Your task to perform on an android device: turn on location history Image 0: 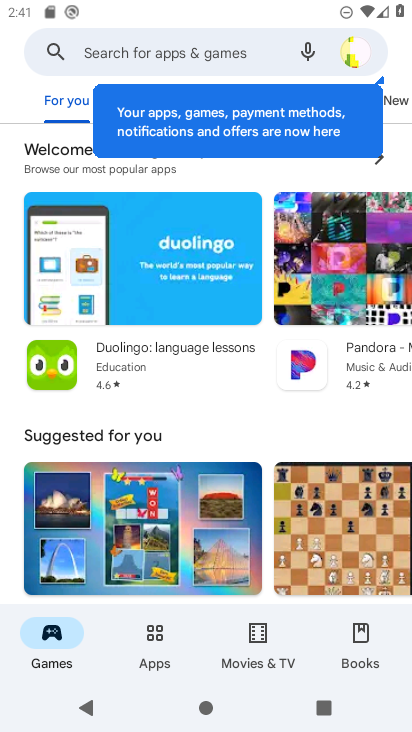
Step 0: press home button
Your task to perform on an android device: turn on location history Image 1: 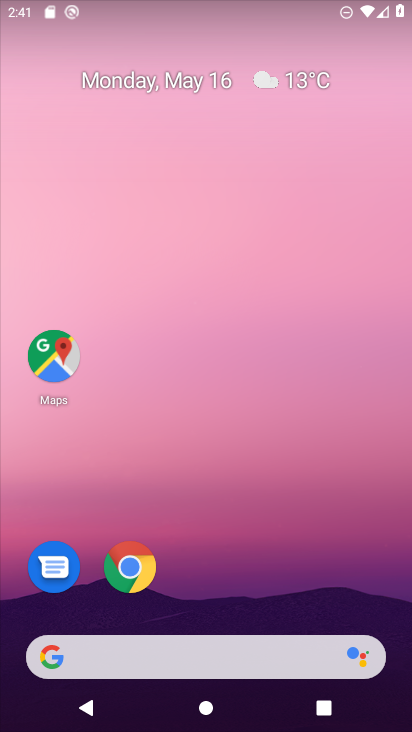
Step 1: drag from (285, 588) to (289, 38)
Your task to perform on an android device: turn on location history Image 2: 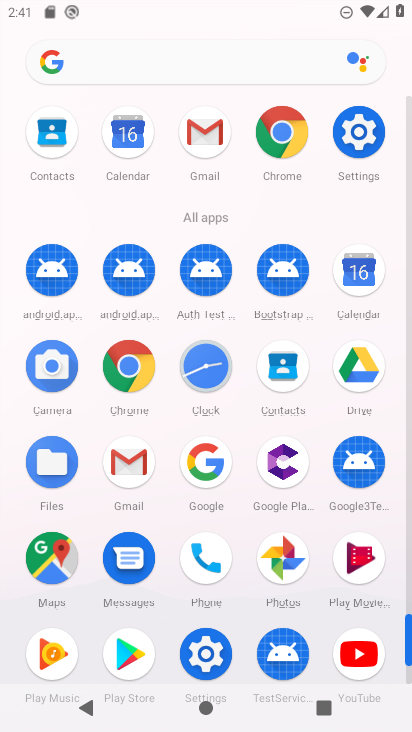
Step 2: click (203, 651)
Your task to perform on an android device: turn on location history Image 3: 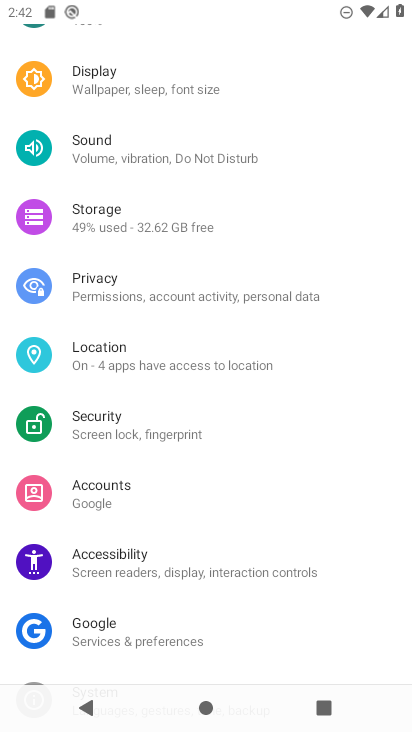
Step 3: click (119, 349)
Your task to perform on an android device: turn on location history Image 4: 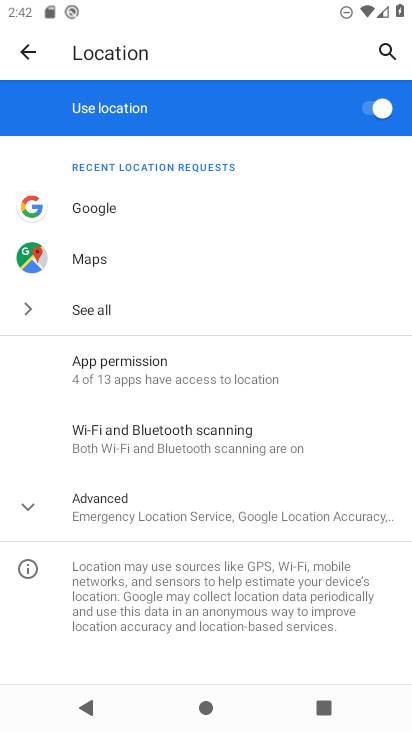
Step 4: click (176, 511)
Your task to perform on an android device: turn on location history Image 5: 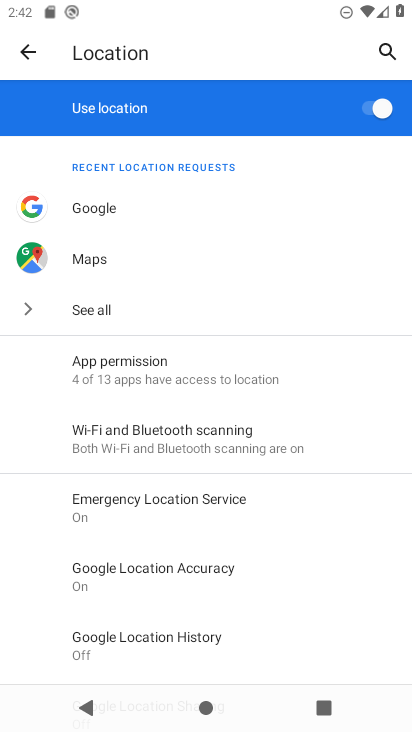
Step 5: click (213, 643)
Your task to perform on an android device: turn on location history Image 6: 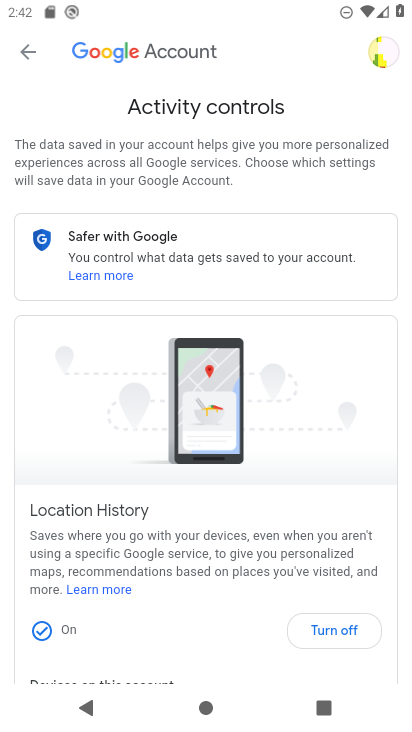
Step 6: task complete